Your task to perform on an android device: find photos in the google photos app Image 0: 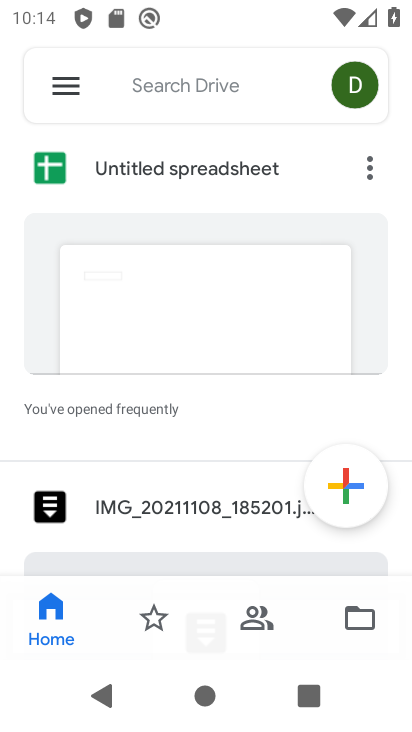
Step 0: press back button
Your task to perform on an android device: find photos in the google photos app Image 1: 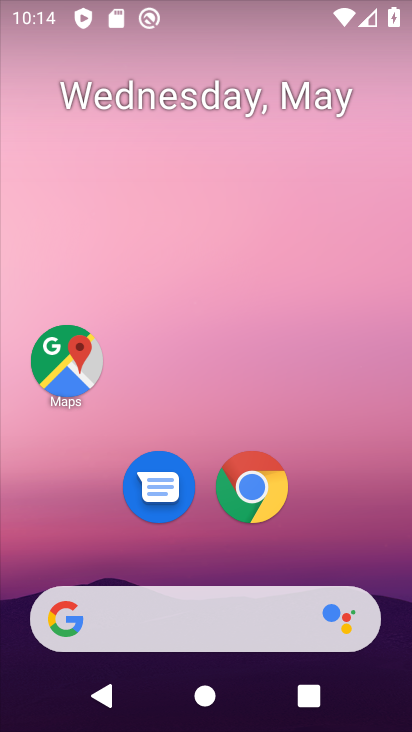
Step 1: drag from (351, 492) to (283, 9)
Your task to perform on an android device: find photos in the google photos app Image 2: 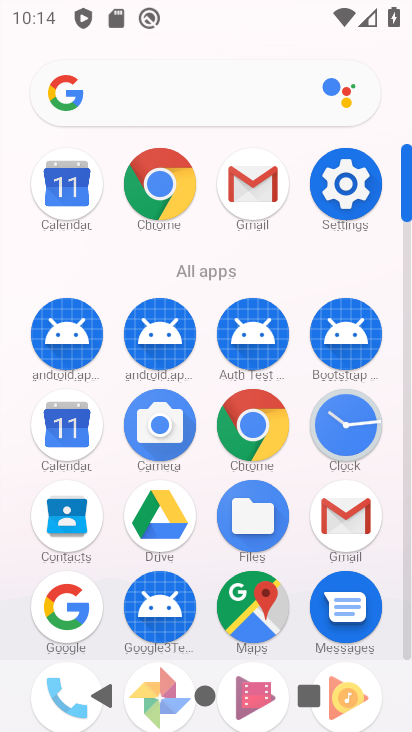
Step 2: drag from (18, 632) to (33, 367)
Your task to perform on an android device: find photos in the google photos app Image 3: 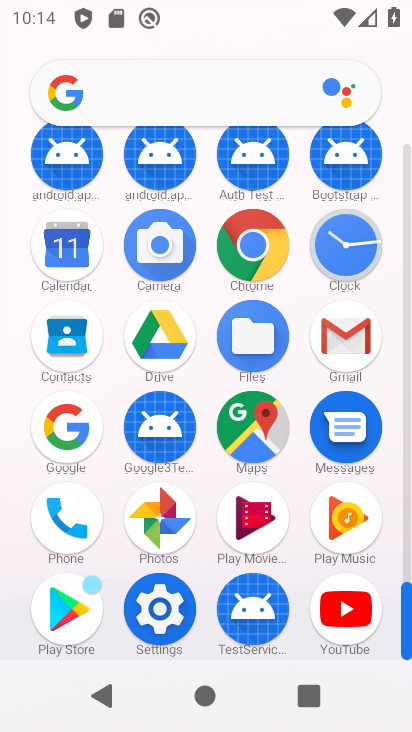
Step 3: click (157, 516)
Your task to perform on an android device: find photos in the google photos app Image 4: 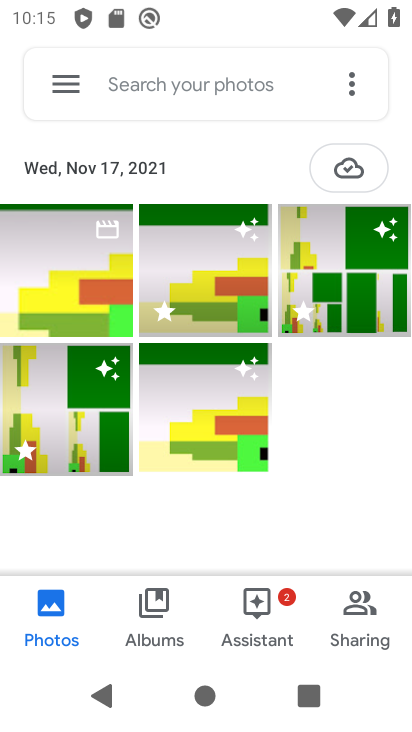
Step 4: task complete